Your task to perform on an android device: turn on the 12-hour format for clock Image 0: 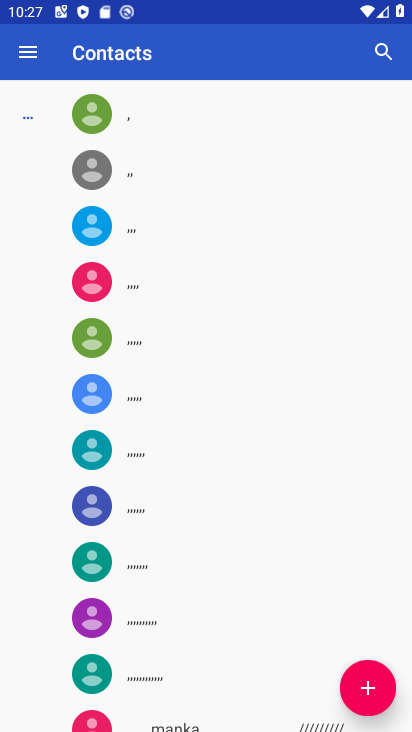
Step 0: press home button
Your task to perform on an android device: turn on the 12-hour format for clock Image 1: 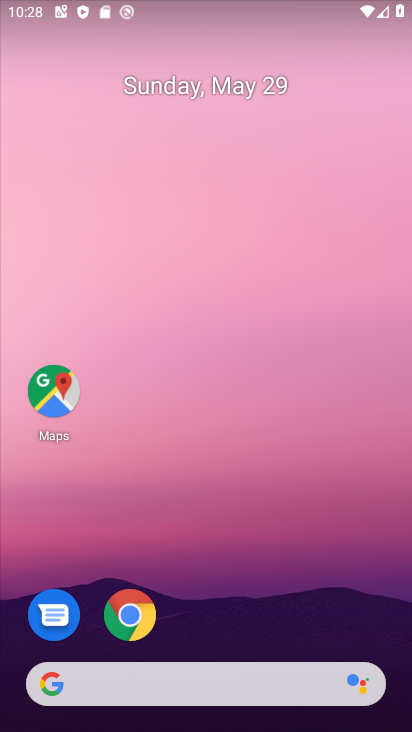
Step 1: drag from (187, 645) to (139, 101)
Your task to perform on an android device: turn on the 12-hour format for clock Image 2: 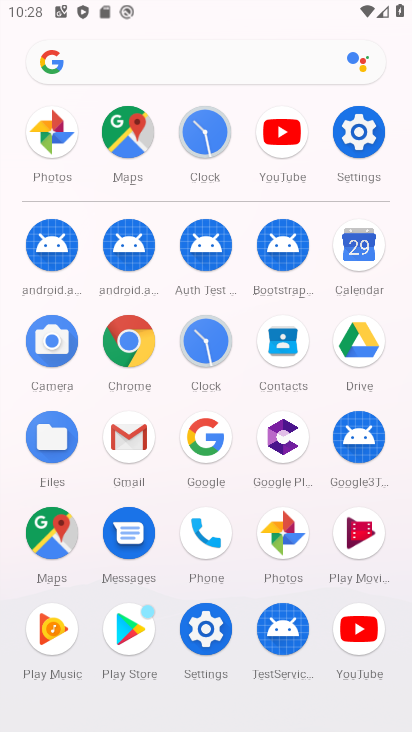
Step 2: click (199, 355)
Your task to perform on an android device: turn on the 12-hour format for clock Image 3: 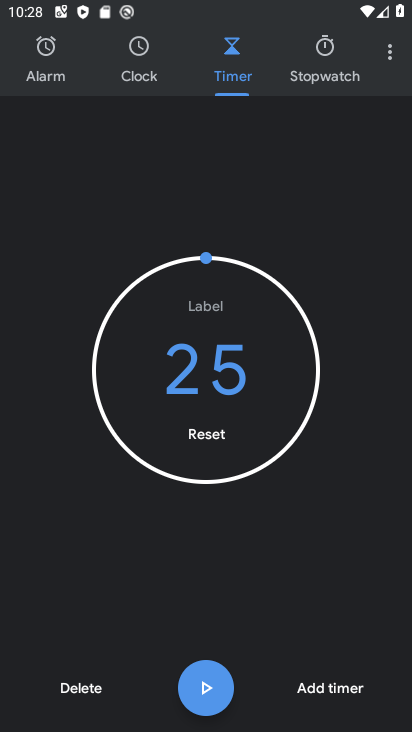
Step 3: click (385, 51)
Your task to perform on an android device: turn on the 12-hour format for clock Image 4: 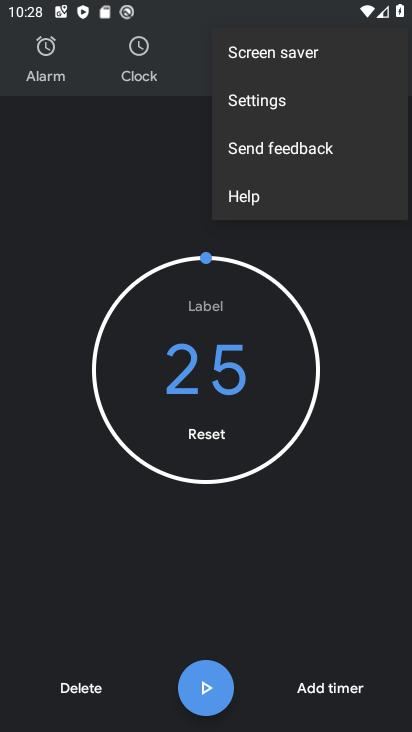
Step 4: click (244, 114)
Your task to perform on an android device: turn on the 12-hour format for clock Image 5: 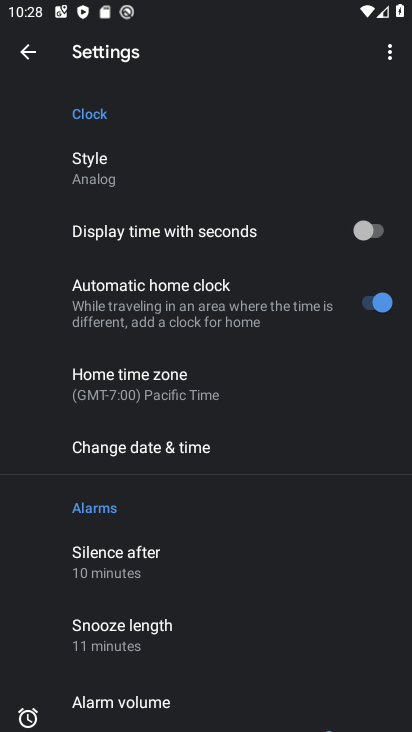
Step 5: drag from (216, 502) to (185, 129)
Your task to perform on an android device: turn on the 12-hour format for clock Image 6: 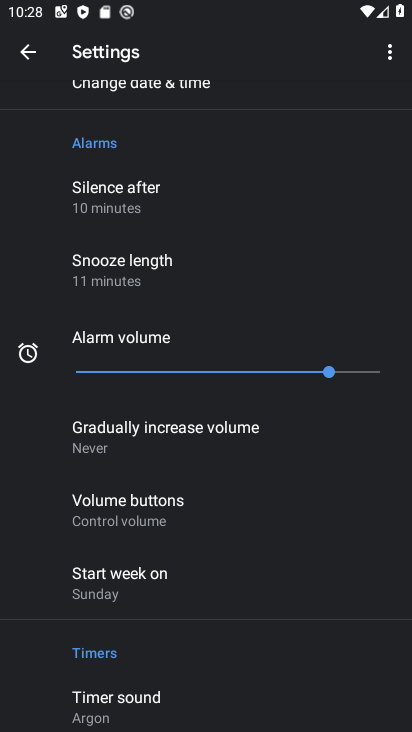
Step 6: drag from (155, 537) to (134, 160)
Your task to perform on an android device: turn on the 12-hour format for clock Image 7: 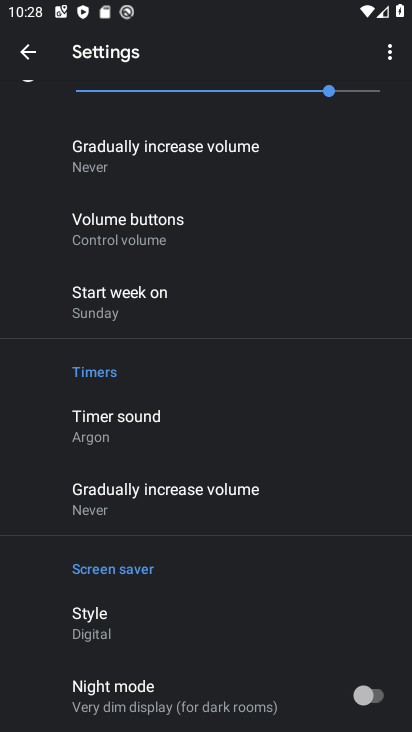
Step 7: drag from (152, 224) to (196, 730)
Your task to perform on an android device: turn on the 12-hour format for clock Image 8: 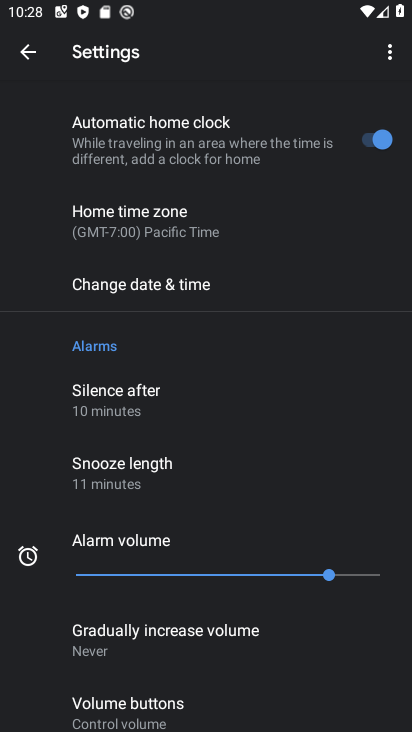
Step 8: click (138, 291)
Your task to perform on an android device: turn on the 12-hour format for clock Image 9: 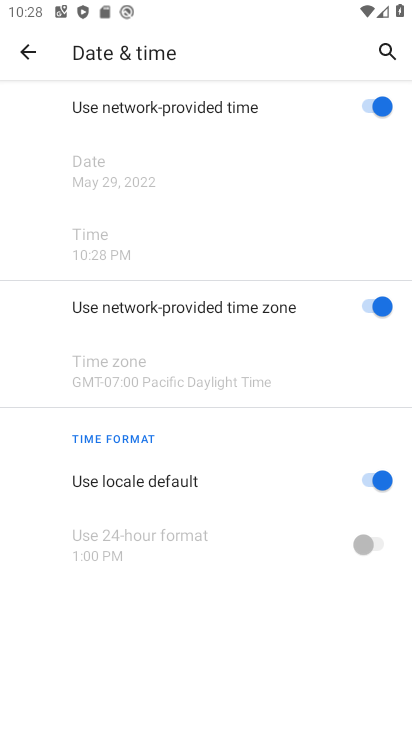
Step 9: task complete